Your task to perform on an android device: Go to calendar. Show me events next week Image 0: 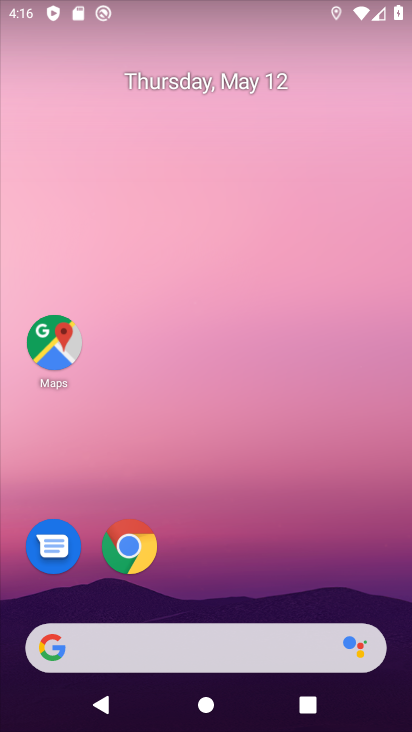
Step 0: drag from (213, 431) to (204, 35)
Your task to perform on an android device: Go to calendar. Show me events next week Image 1: 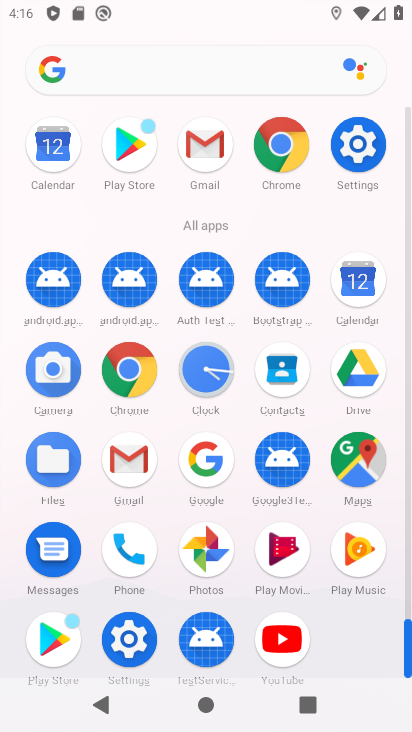
Step 1: drag from (0, 582) to (4, 345)
Your task to perform on an android device: Go to calendar. Show me events next week Image 2: 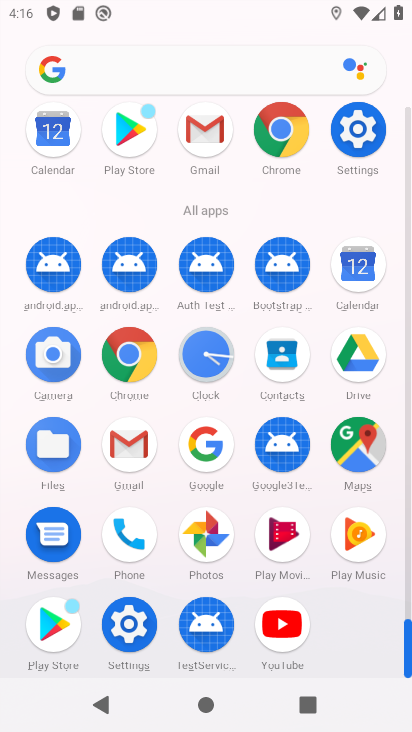
Step 2: click (353, 256)
Your task to perform on an android device: Go to calendar. Show me events next week Image 3: 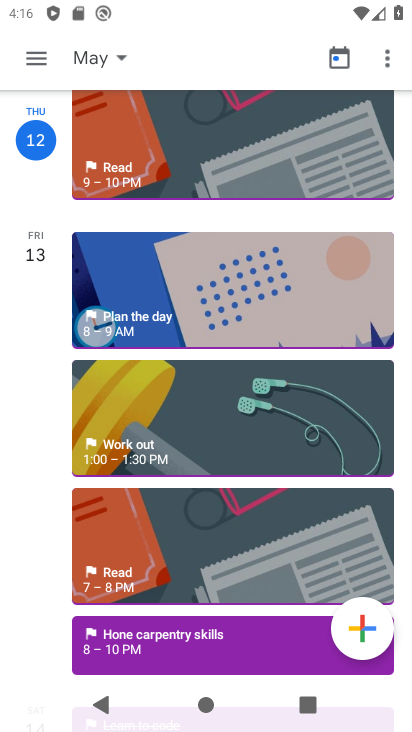
Step 3: click (29, 56)
Your task to perform on an android device: Go to calendar. Show me events next week Image 4: 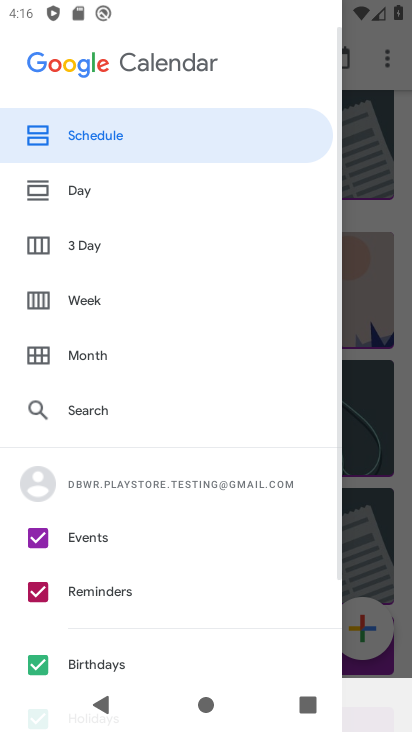
Step 4: click (90, 291)
Your task to perform on an android device: Go to calendar. Show me events next week Image 5: 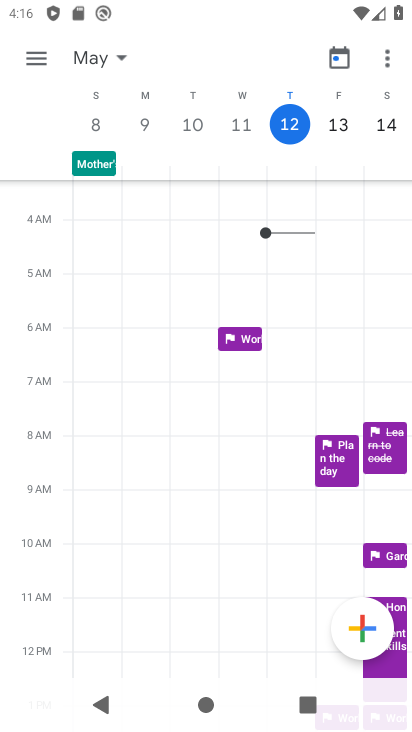
Step 5: task complete